Your task to perform on an android device: toggle wifi Image 0: 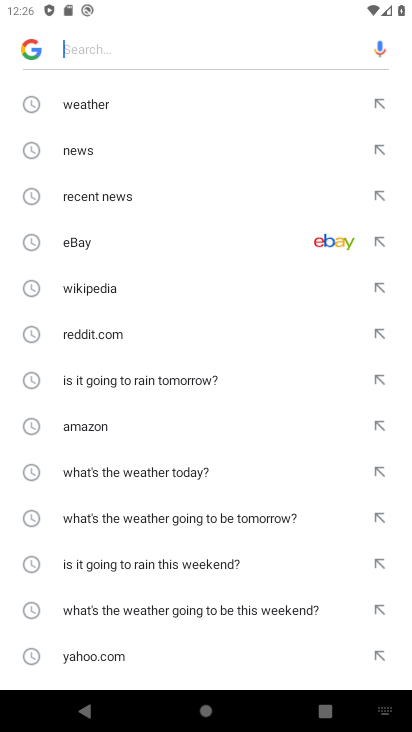
Step 0: press home button
Your task to perform on an android device: toggle wifi Image 1: 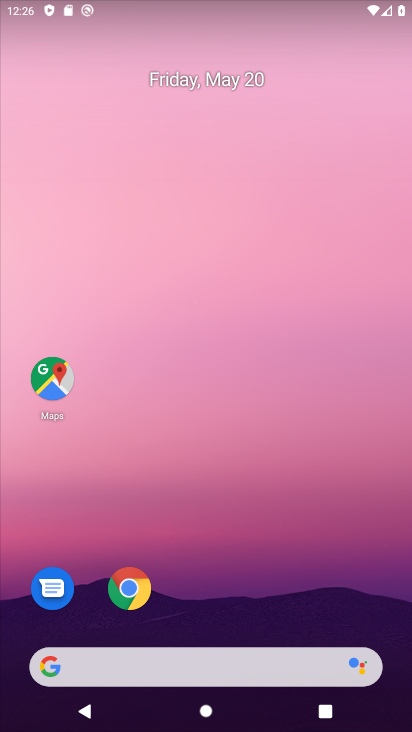
Step 1: drag from (389, 628) to (282, 0)
Your task to perform on an android device: toggle wifi Image 2: 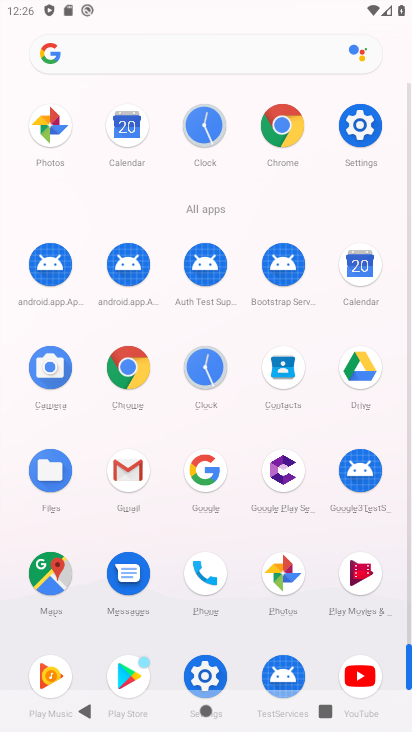
Step 2: click (202, 678)
Your task to perform on an android device: toggle wifi Image 3: 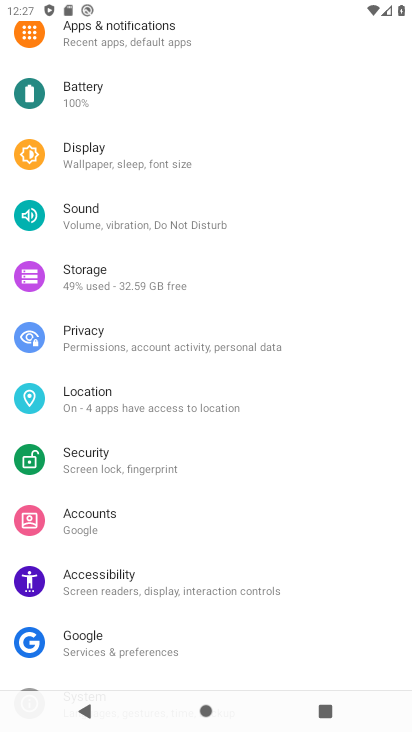
Step 3: drag from (315, 174) to (312, 568)
Your task to perform on an android device: toggle wifi Image 4: 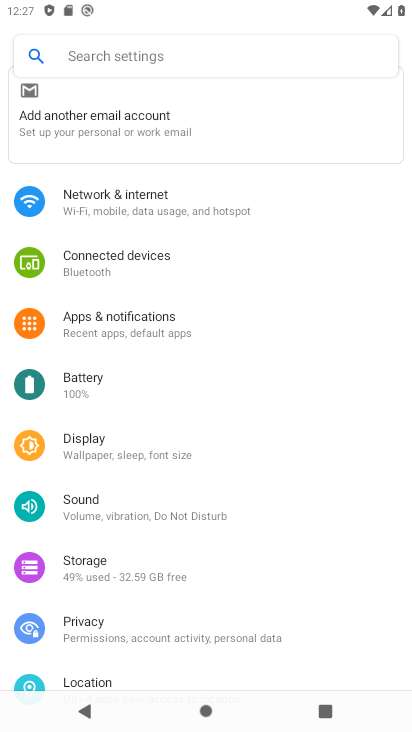
Step 4: drag from (285, 179) to (302, 371)
Your task to perform on an android device: toggle wifi Image 5: 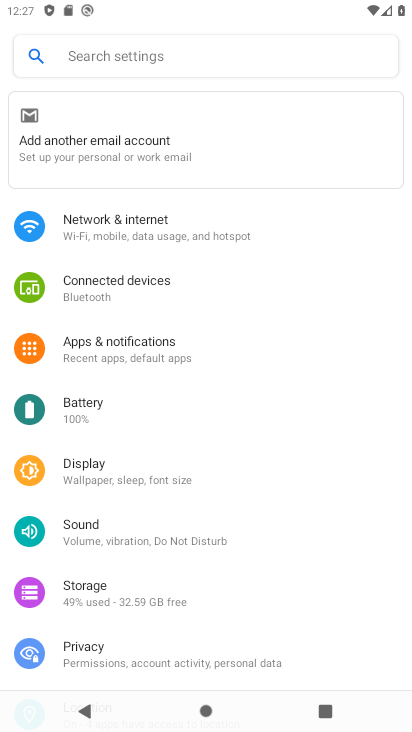
Step 5: click (87, 219)
Your task to perform on an android device: toggle wifi Image 6: 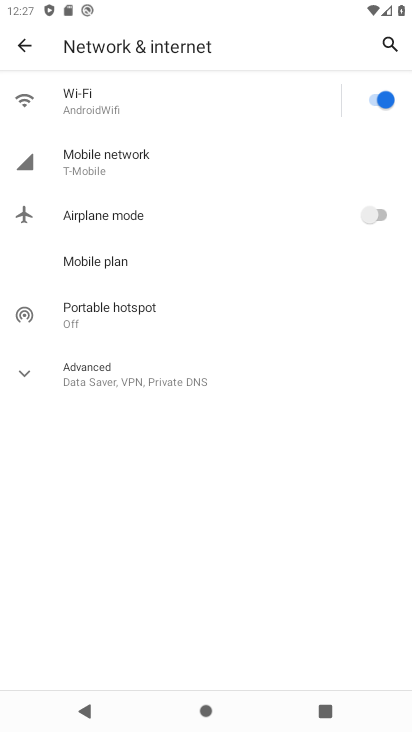
Step 6: click (366, 94)
Your task to perform on an android device: toggle wifi Image 7: 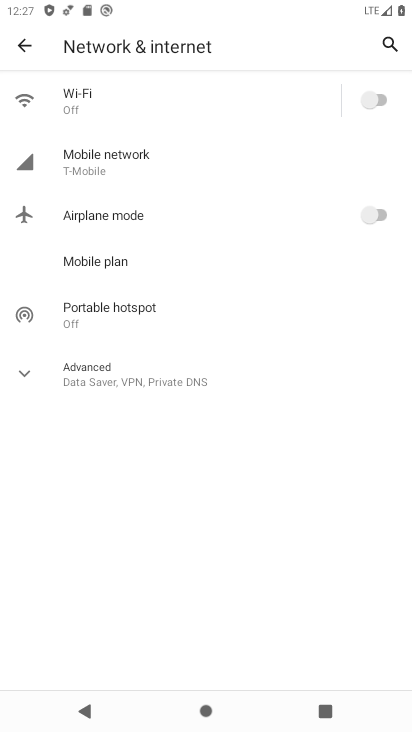
Step 7: task complete